Your task to perform on an android device: open chrome and create a bookmark for the current page Image 0: 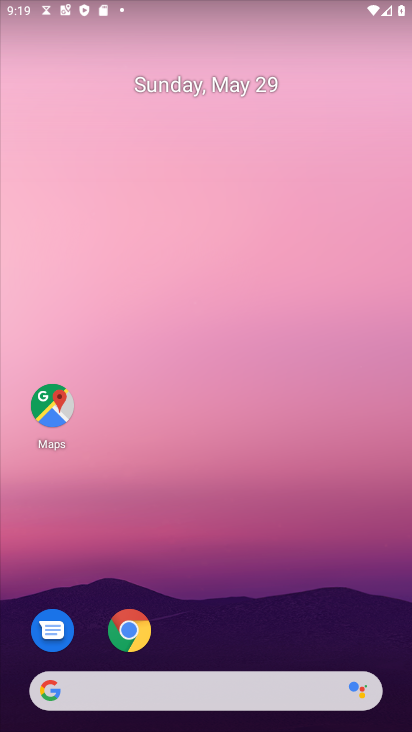
Step 0: click (135, 625)
Your task to perform on an android device: open chrome and create a bookmark for the current page Image 1: 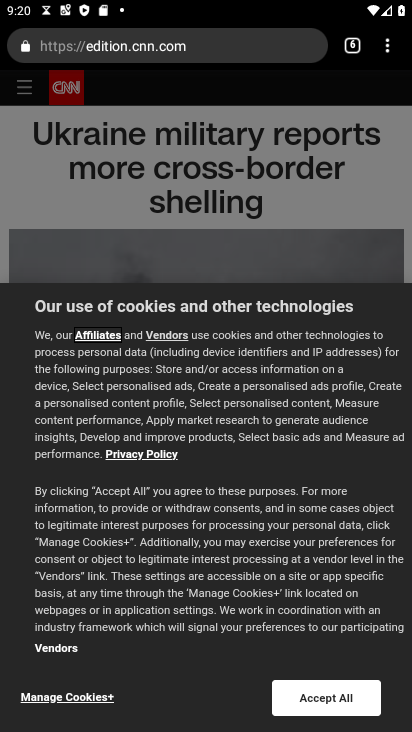
Step 1: click (394, 44)
Your task to perform on an android device: open chrome and create a bookmark for the current page Image 2: 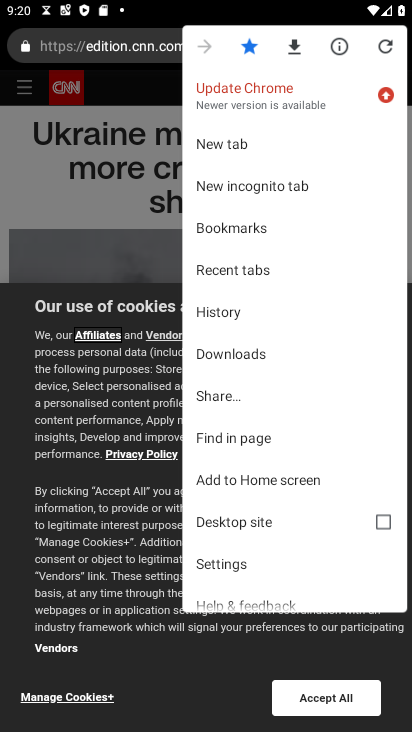
Step 2: task complete